Your task to perform on an android device: turn on the 12-hour format for clock Image 0: 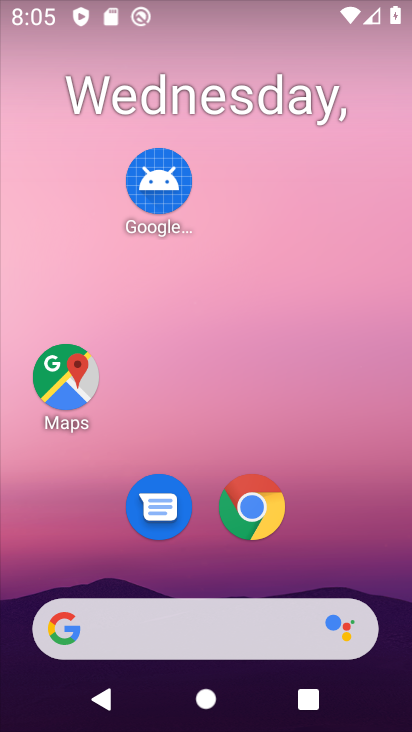
Step 0: drag from (209, 538) to (183, 158)
Your task to perform on an android device: turn on the 12-hour format for clock Image 1: 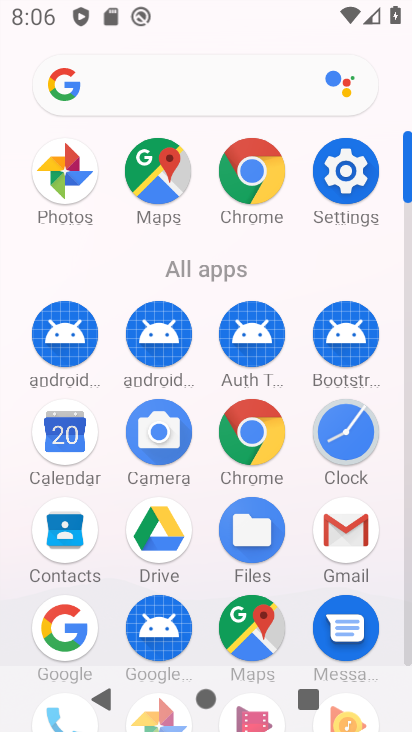
Step 1: click (332, 441)
Your task to perform on an android device: turn on the 12-hour format for clock Image 2: 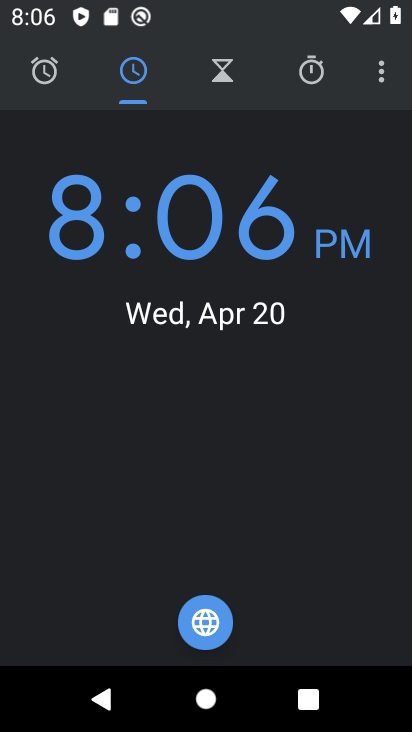
Step 2: click (385, 69)
Your task to perform on an android device: turn on the 12-hour format for clock Image 3: 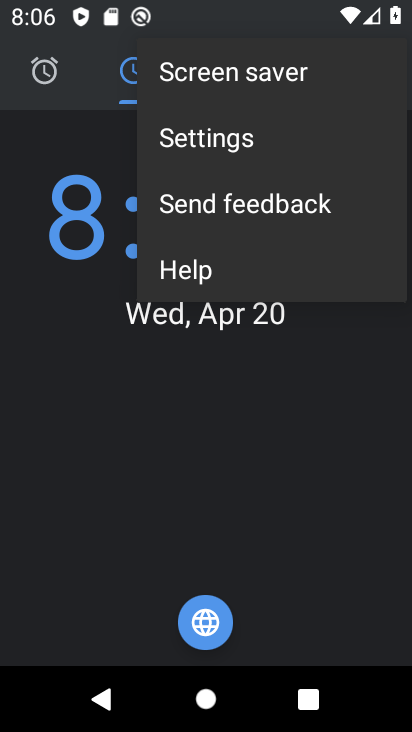
Step 3: click (249, 123)
Your task to perform on an android device: turn on the 12-hour format for clock Image 4: 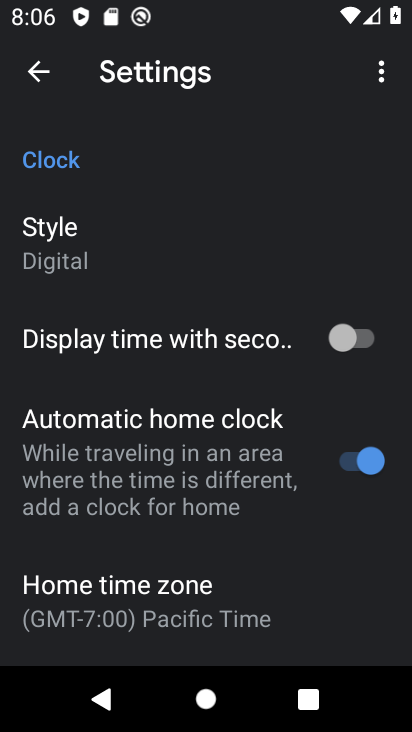
Step 4: drag from (173, 471) to (173, 152)
Your task to perform on an android device: turn on the 12-hour format for clock Image 5: 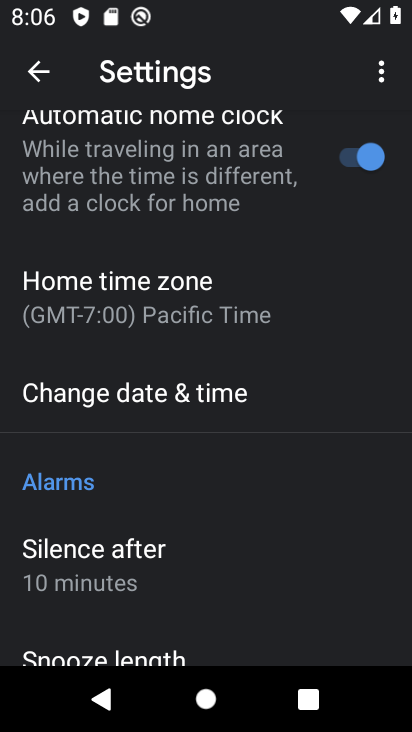
Step 5: click (156, 386)
Your task to perform on an android device: turn on the 12-hour format for clock Image 6: 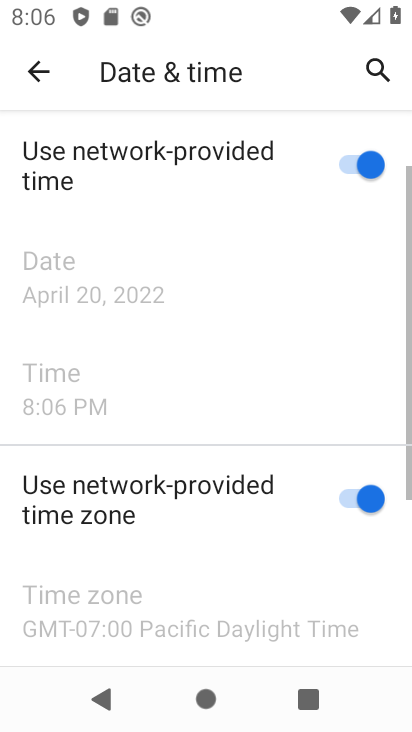
Step 6: task complete